Your task to perform on an android device: toggle translation in the chrome app Image 0: 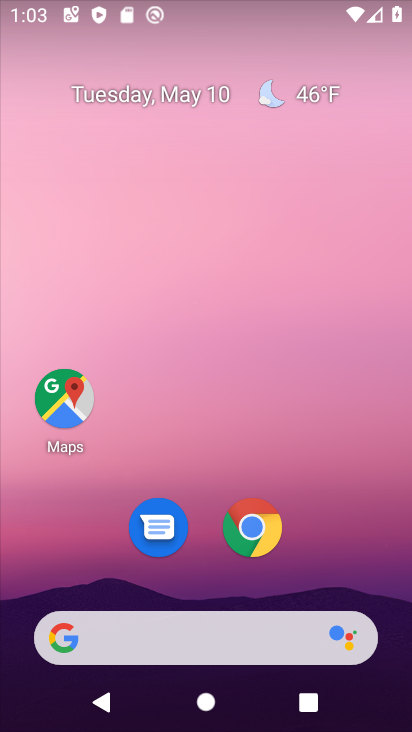
Step 0: click (256, 535)
Your task to perform on an android device: toggle translation in the chrome app Image 1: 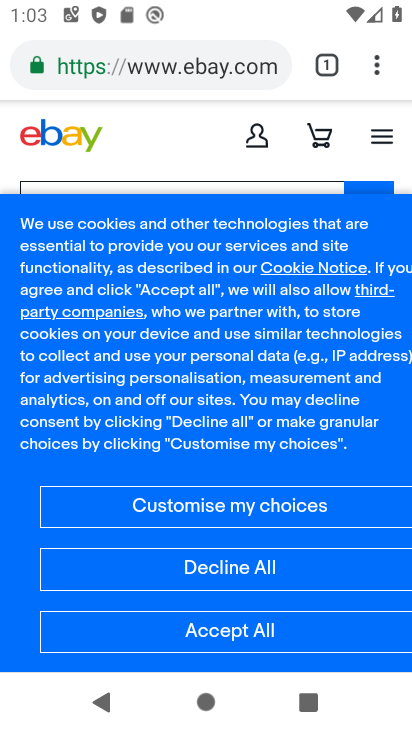
Step 1: drag from (379, 64) to (169, 581)
Your task to perform on an android device: toggle translation in the chrome app Image 2: 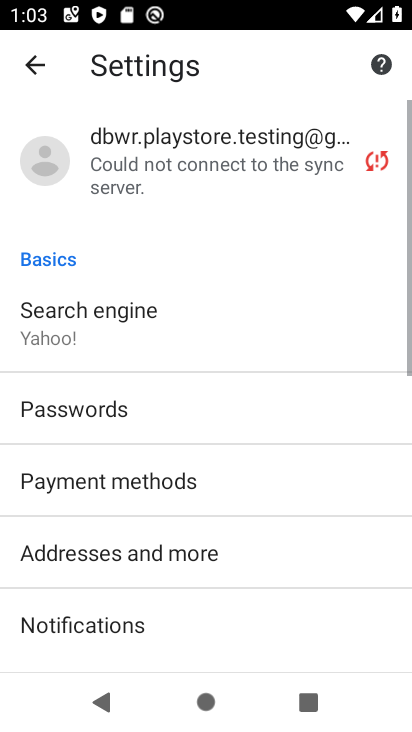
Step 2: drag from (192, 608) to (165, 234)
Your task to perform on an android device: toggle translation in the chrome app Image 3: 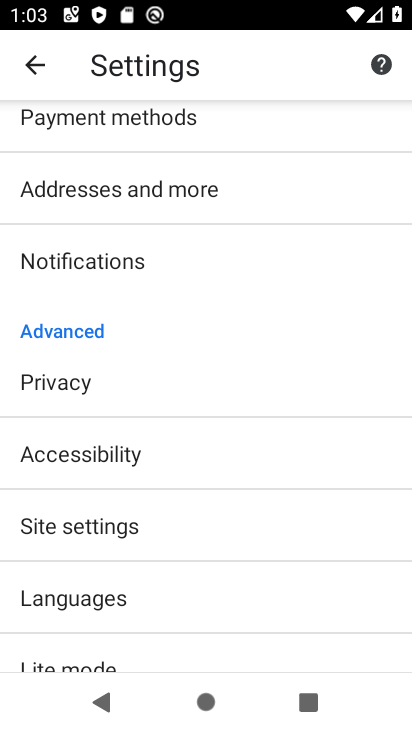
Step 3: click (96, 602)
Your task to perform on an android device: toggle translation in the chrome app Image 4: 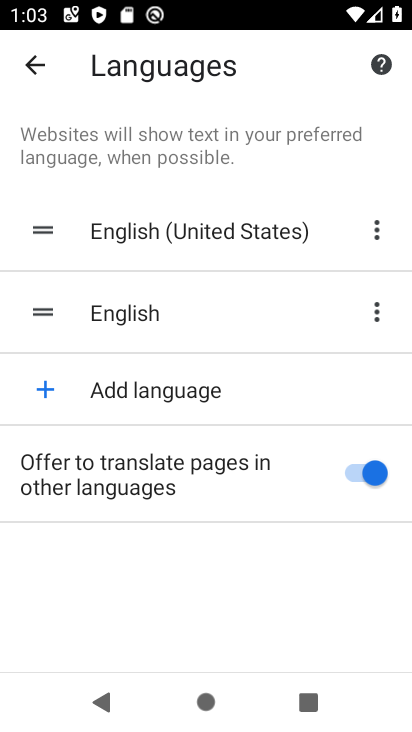
Step 4: click (364, 474)
Your task to perform on an android device: toggle translation in the chrome app Image 5: 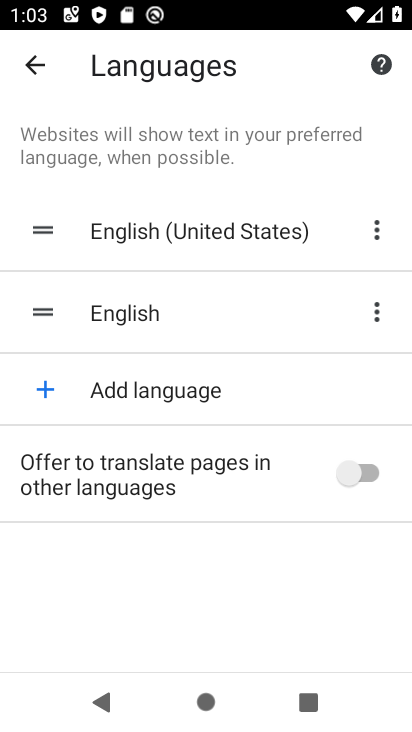
Step 5: task complete